Your task to perform on an android device: all mails in gmail Image 0: 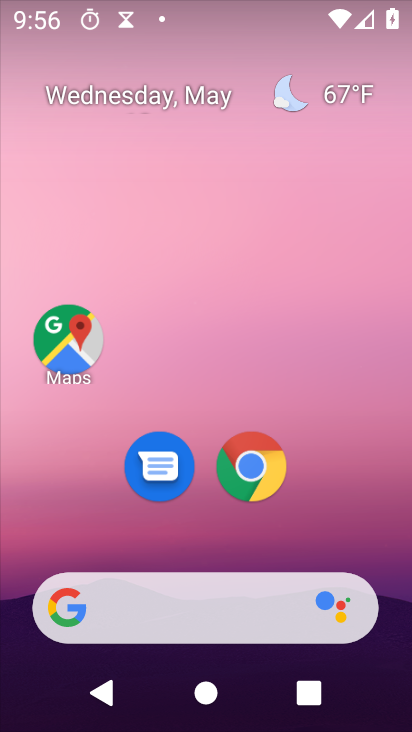
Step 0: drag from (274, 552) to (91, 23)
Your task to perform on an android device: all mails in gmail Image 1: 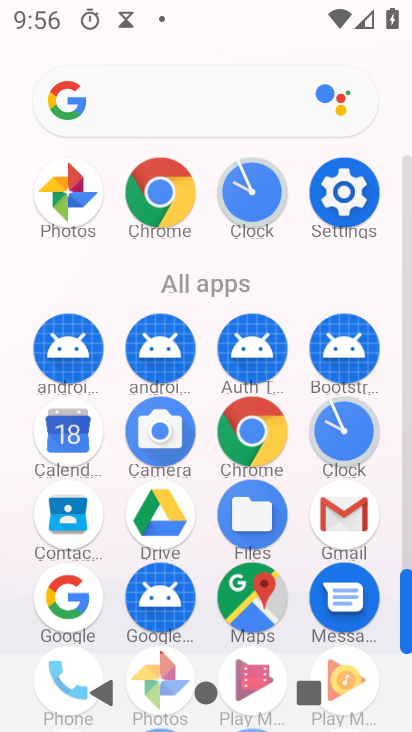
Step 1: click (360, 532)
Your task to perform on an android device: all mails in gmail Image 2: 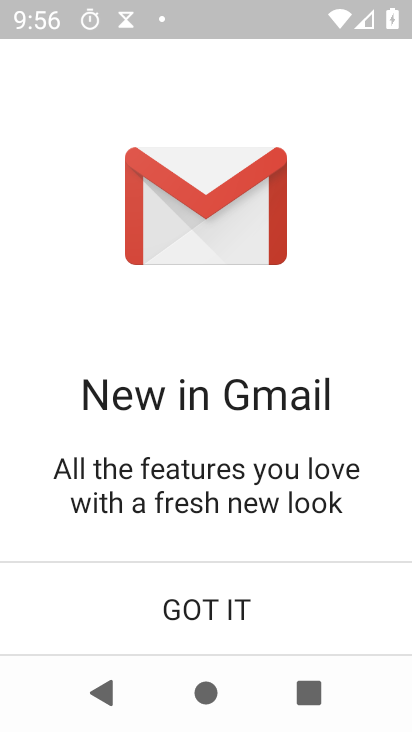
Step 2: click (240, 602)
Your task to perform on an android device: all mails in gmail Image 3: 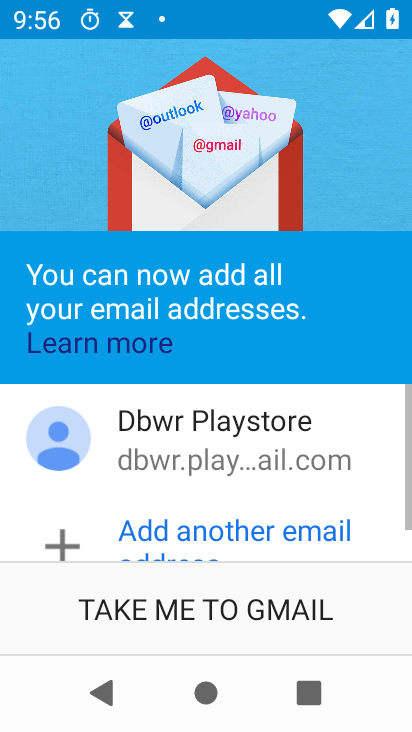
Step 3: click (244, 604)
Your task to perform on an android device: all mails in gmail Image 4: 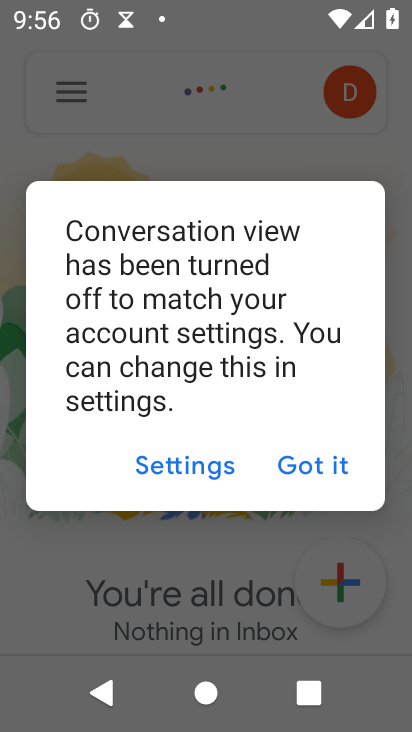
Step 4: click (297, 472)
Your task to perform on an android device: all mails in gmail Image 5: 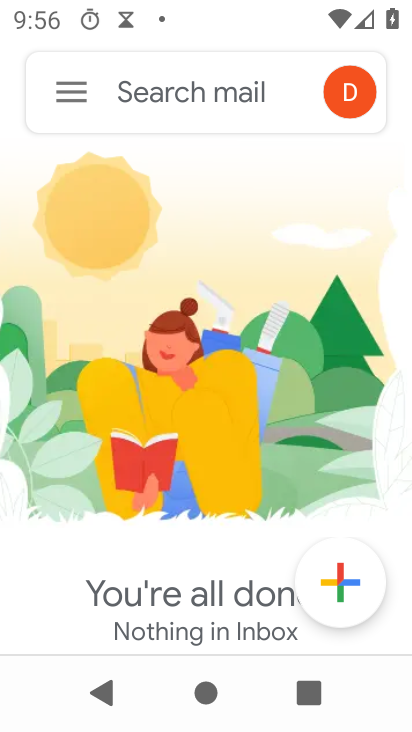
Step 5: click (75, 99)
Your task to perform on an android device: all mails in gmail Image 6: 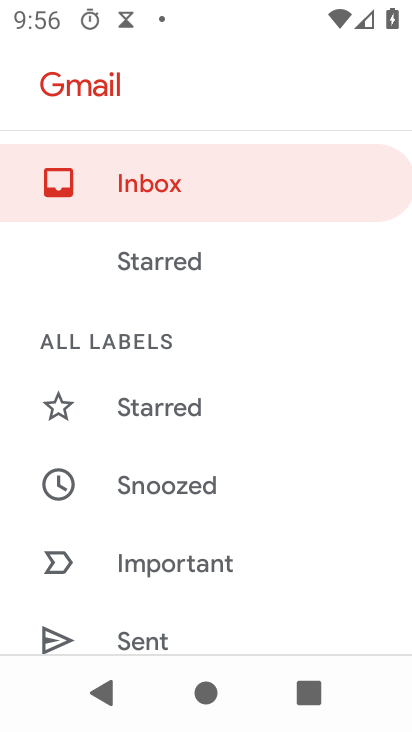
Step 6: drag from (234, 569) to (210, 184)
Your task to perform on an android device: all mails in gmail Image 7: 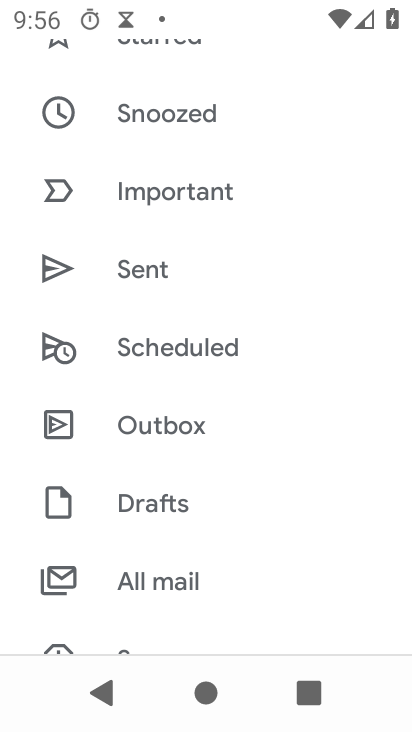
Step 7: click (142, 587)
Your task to perform on an android device: all mails in gmail Image 8: 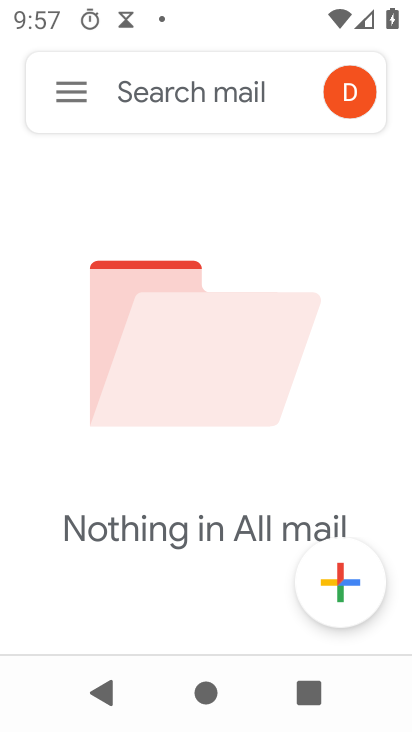
Step 8: task complete